Your task to perform on an android device: What is the recent news? Image 0: 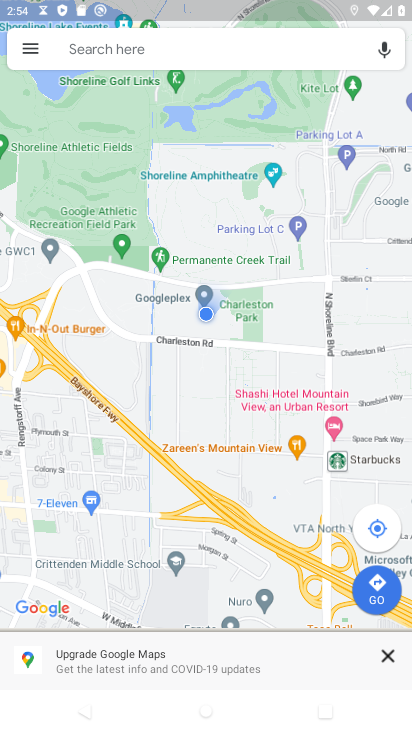
Step 0: press home button
Your task to perform on an android device: What is the recent news? Image 1: 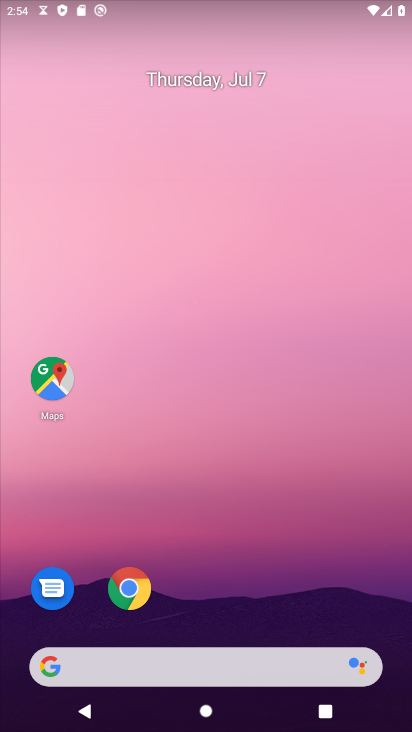
Step 1: drag from (231, 586) to (241, 118)
Your task to perform on an android device: What is the recent news? Image 2: 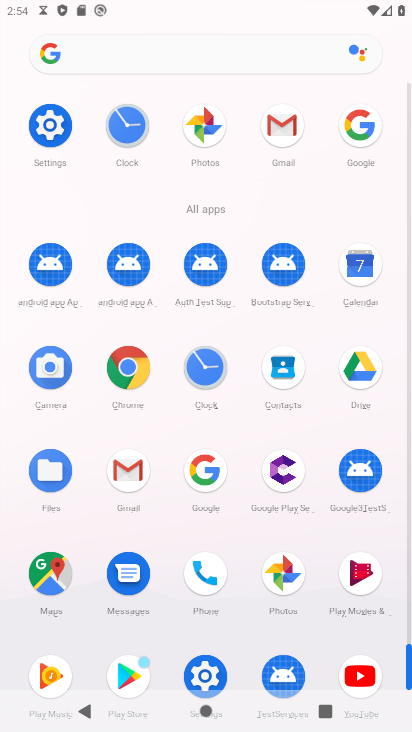
Step 2: click (359, 121)
Your task to perform on an android device: What is the recent news? Image 3: 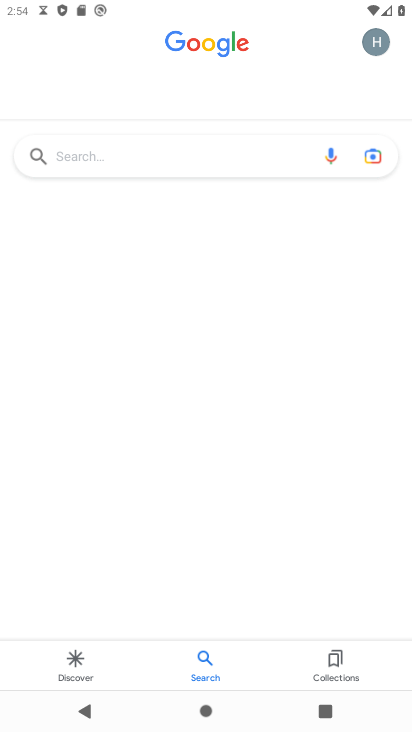
Step 3: click (229, 148)
Your task to perform on an android device: What is the recent news? Image 4: 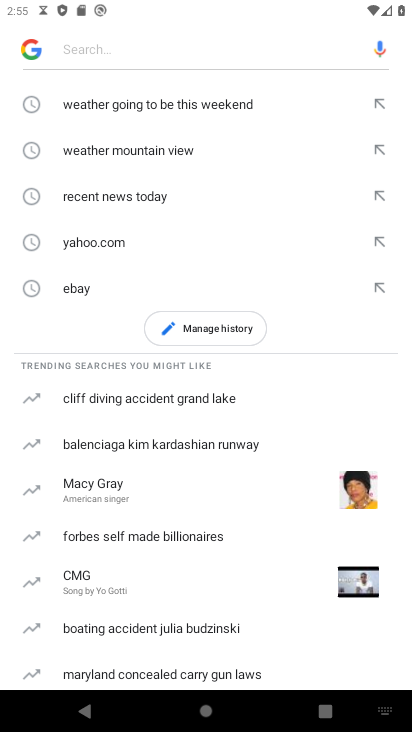
Step 4: type "recent news"
Your task to perform on an android device: What is the recent news? Image 5: 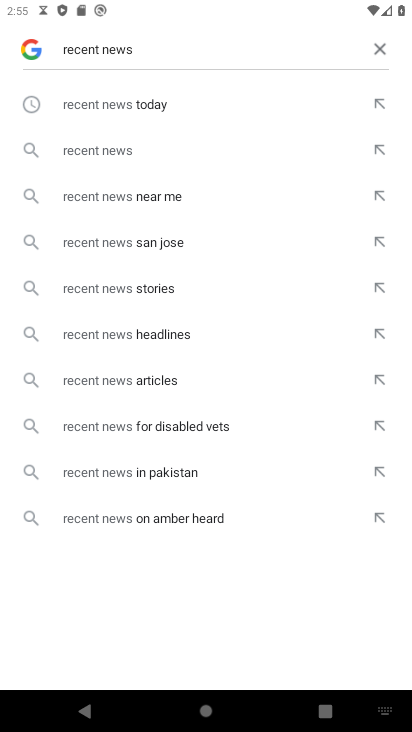
Step 5: click (125, 152)
Your task to perform on an android device: What is the recent news? Image 6: 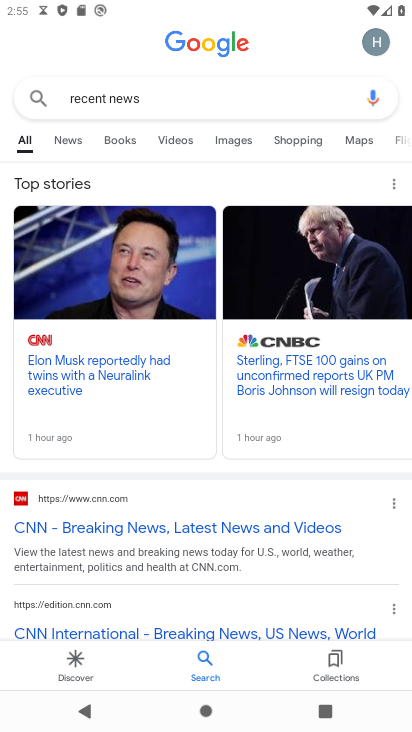
Step 6: click (98, 366)
Your task to perform on an android device: What is the recent news? Image 7: 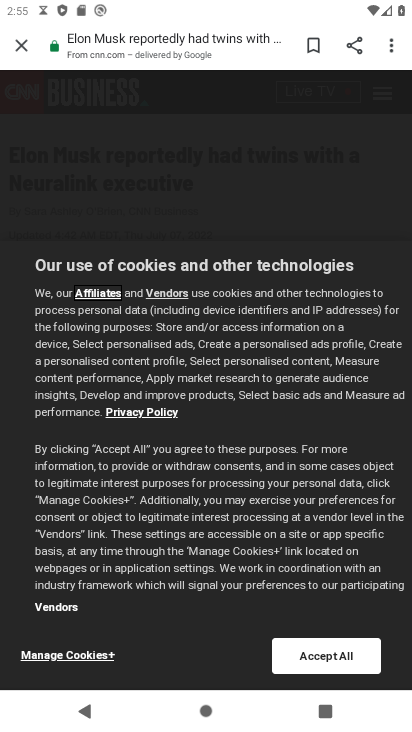
Step 7: click (340, 650)
Your task to perform on an android device: What is the recent news? Image 8: 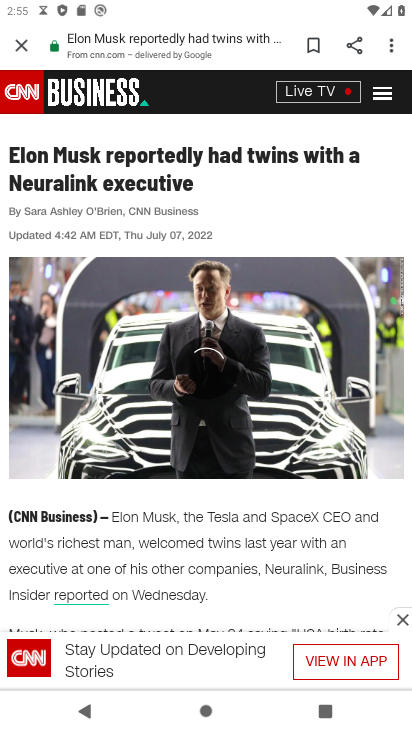
Step 8: task complete